Your task to perform on an android device: See recent photos Image 0: 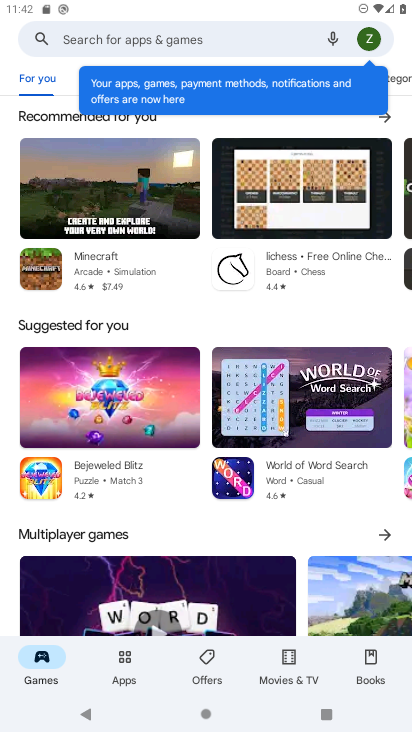
Step 0: press home button
Your task to perform on an android device: See recent photos Image 1: 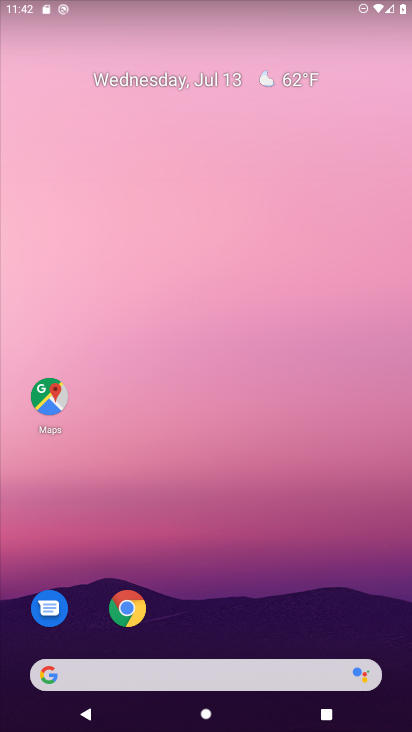
Step 1: drag from (244, 726) to (244, 188)
Your task to perform on an android device: See recent photos Image 2: 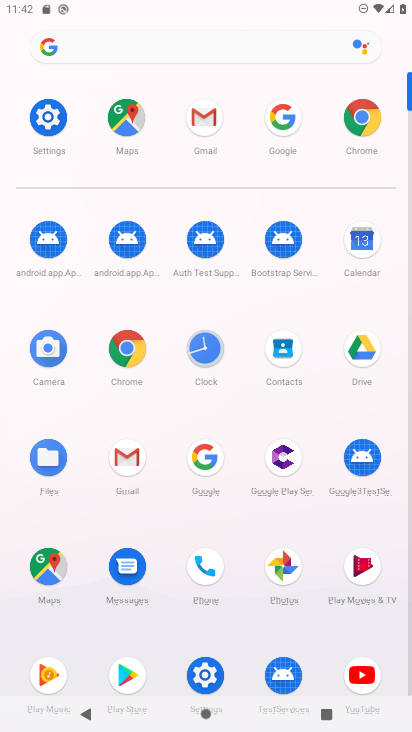
Step 2: click (281, 564)
Your task to perform on an android device: See recent photos Image 3: 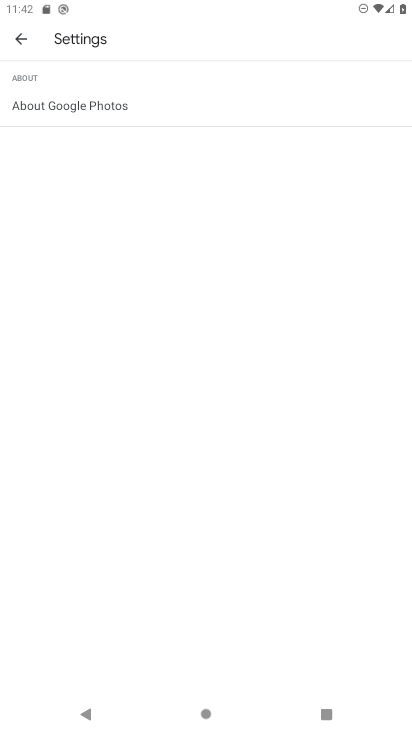
Step 3: click (16, 32)
Your task to perform on an android device: See recent photos Image 4: 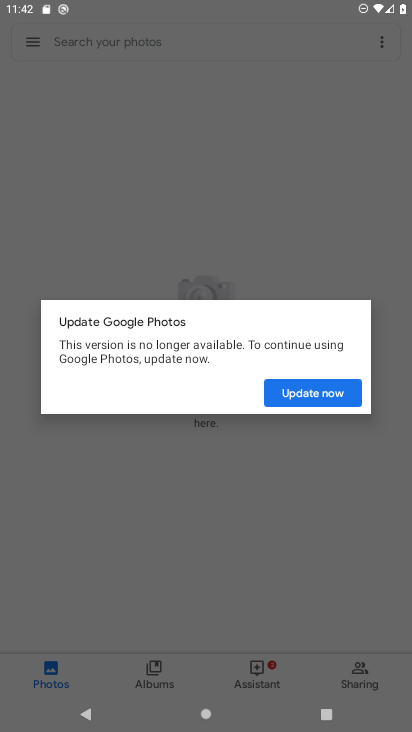
Step 4: task complete